Your task to perform on an android device: turn off data saver in the chrome app Image 0: 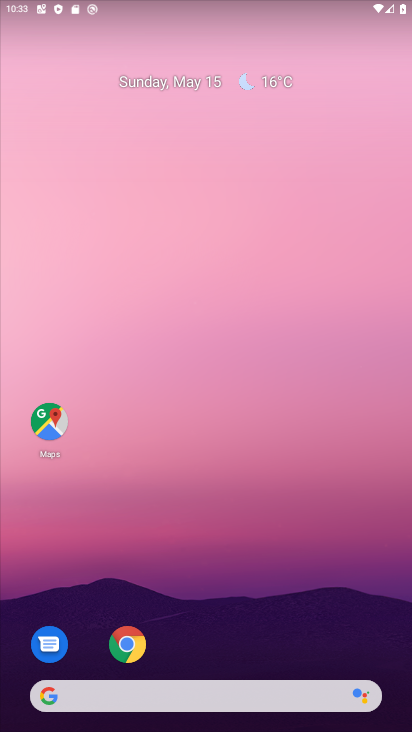
Step 0: click (134, 641)
Your task to perform on an android device: turn off data saver in the chrome app Image 1: 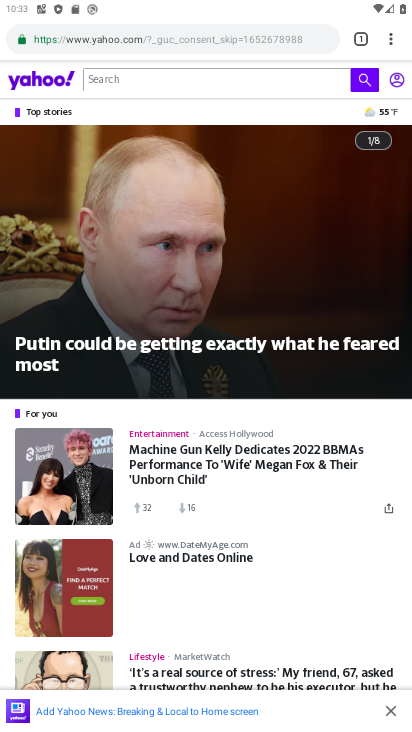
Step 1: click (393, 42)
Your task to perform on an android device: turn off data saver in the chrome app Image 2: 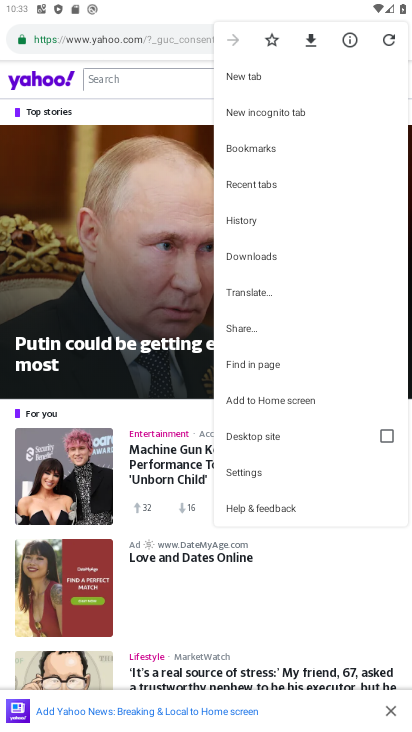
Step 2: click (249, 473)
Your task to perform on an android device: turn off data saver in the chrome app Image 3: 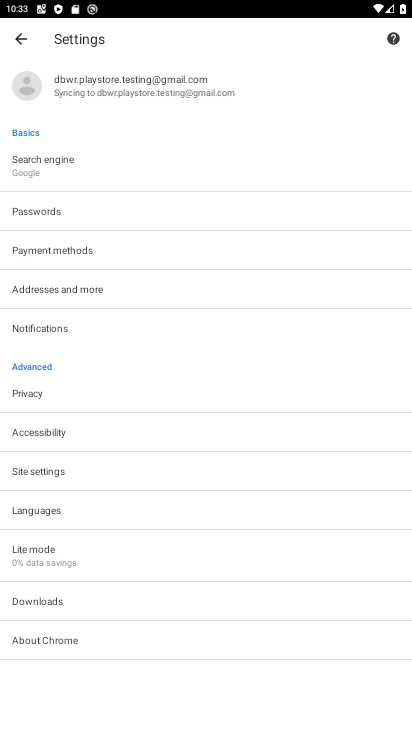
Step 3: click (72, 553)
Your task to perform on an android device: turn off data saver in the chrome app Image 4: 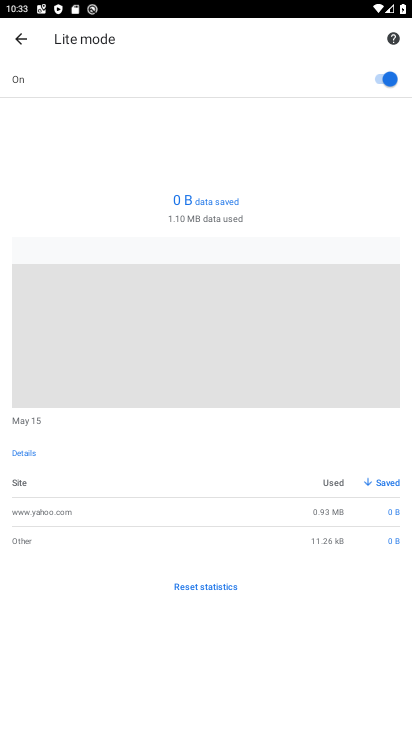
Step 4: click (389, 76)
Your task to perform on an android device: turn off data saver in the chrome app Image 5: 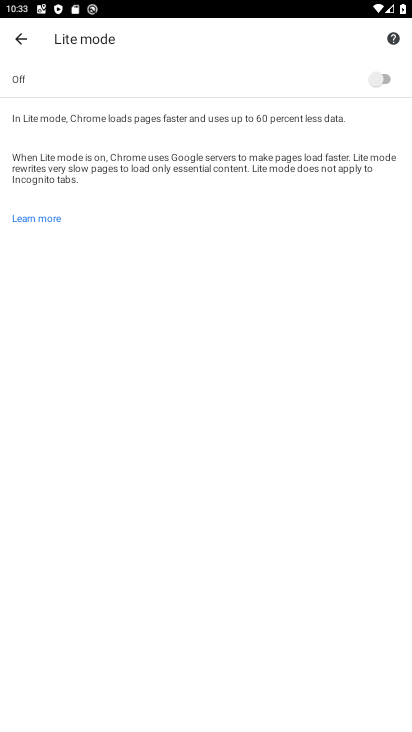
Step 5: task complete